Your task to perform on an android device: Go to Yahoo.com Image 0: 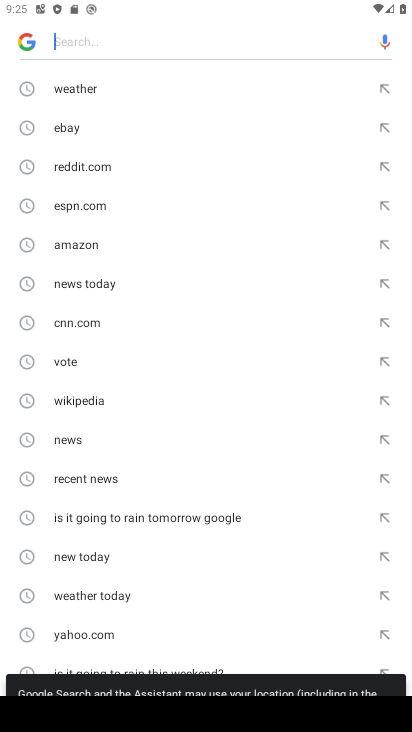
Step 0: press home button
Your task to perform on an android device: Go to Yahoo.com Image 1: 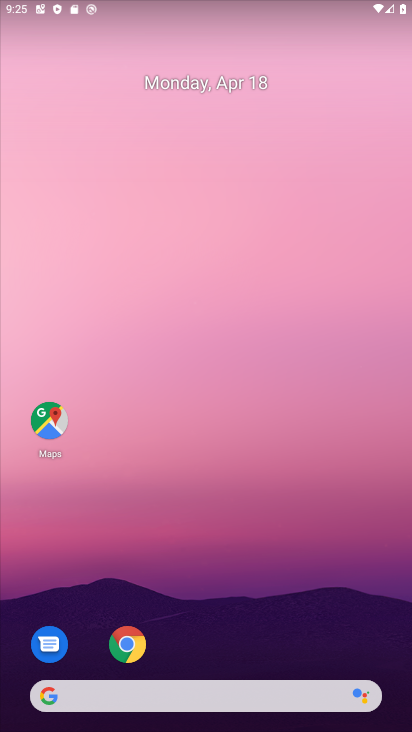
Step 1: click (126, 637)
Your task to perform on an android device: Go to Yahoo.com Image 2: 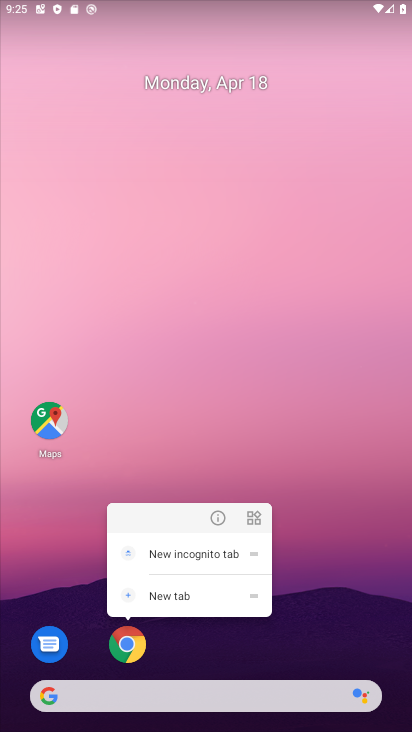
Step 2: click (119, 639)
Your task to perform on an android device: Go to Yahoo.com Image 3: 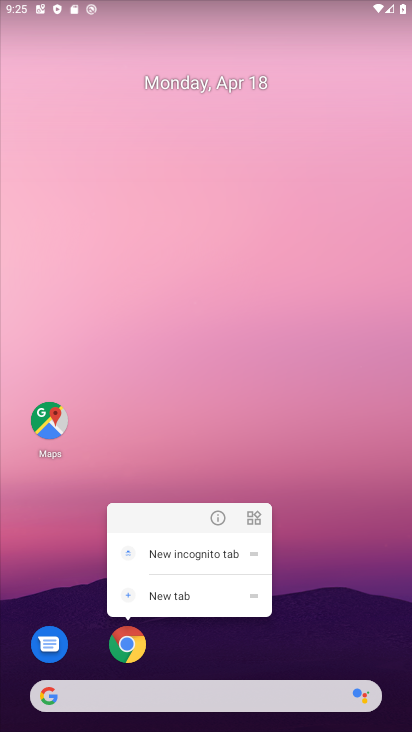
Step 3: click (126, 636)
Your task to perform on an android device: Go to Yahoo.com Image 4: 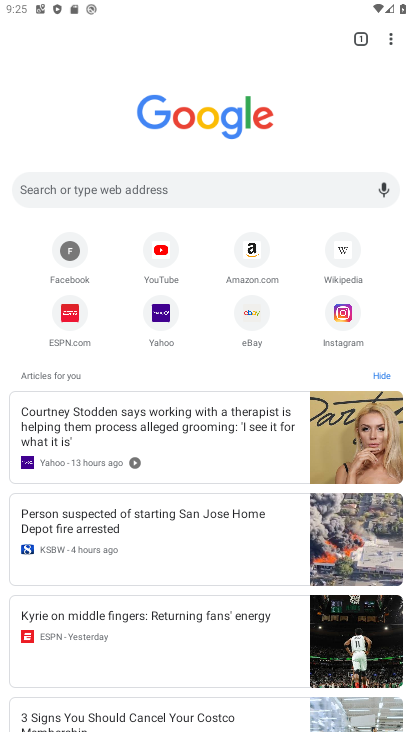
Step 4: click (135, 644)
Your task to perform on an android device: Go to Yahoo.com Image 5: 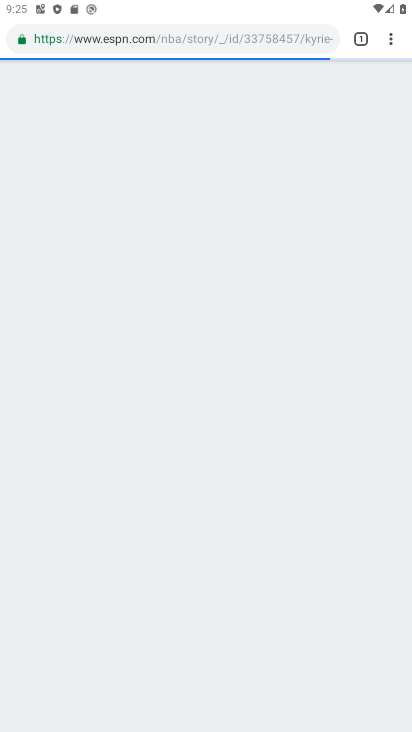
Step 5: click (358, 39)
Your task to perform on an android device: Go to Yahoo.com Image 6: 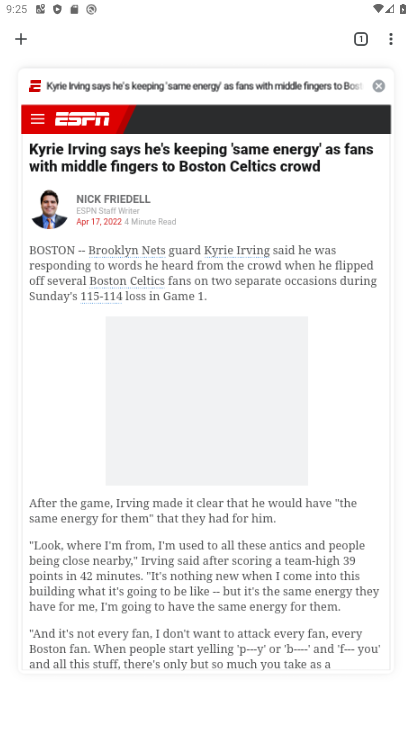
Step 6: click (378, 81)
Your task to perform on an android device: Go to Yahoo.com Image 7: 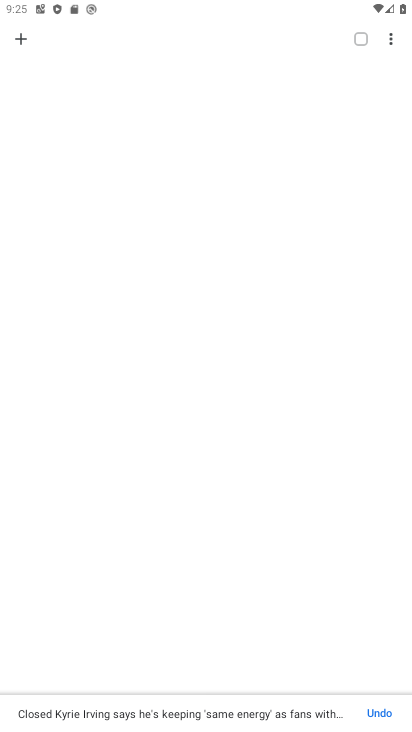
Step 7: click (22, 29)
Your task to perform on an android device: Go to Yahoo.com Image 8: 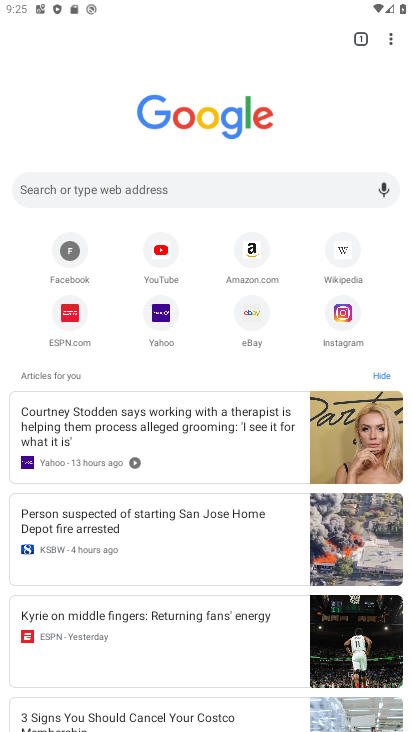
Step 8: click (160, 331)
Your task to perform on an android device: Go to Yahoo.com Image 9: 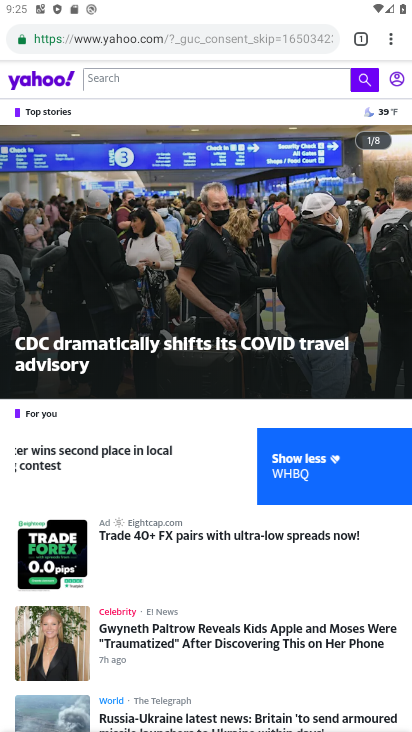
Step 9: task complete